Your task to perform on an android device: toggle pop-ups in chrome Image 0: 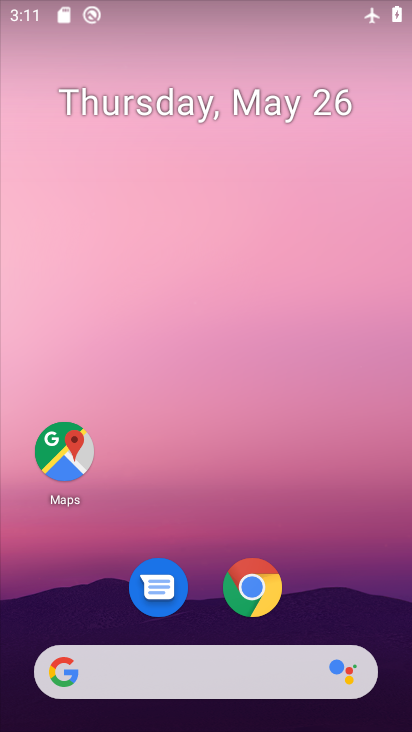
Step 0: drag from (331, 667) to (234, 229)
Your task to perform on an android device: toggle pop-ups in chrome Image 1: 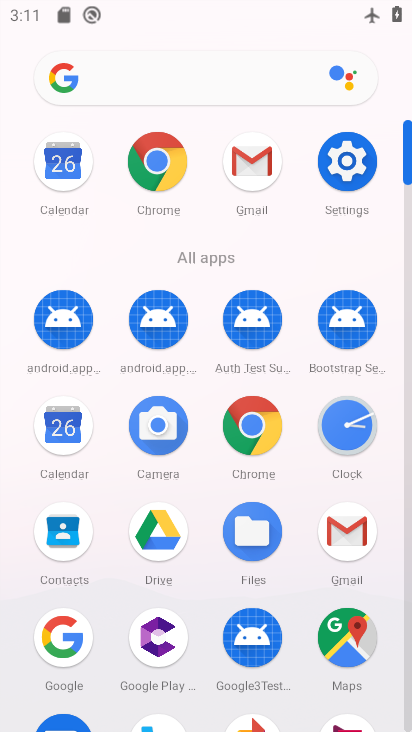
Step 1: click (157, 154)
Your task to perform on an android device: toggle pop-ups in chrome Image 2: 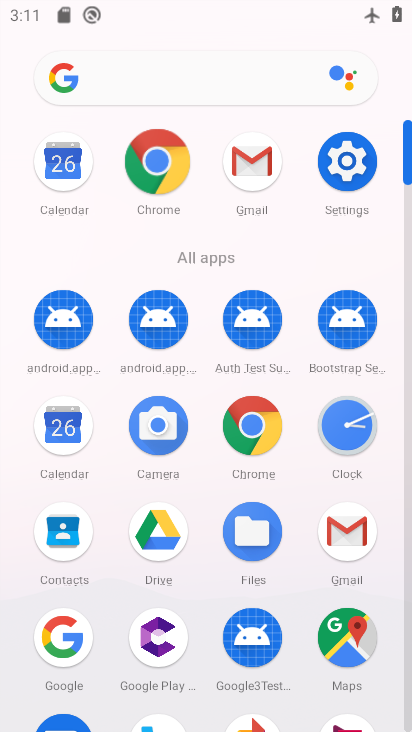
Step 2: click (146, 158)
Your task to perform on an android device: toggle pop-ups in chrome Image 3: 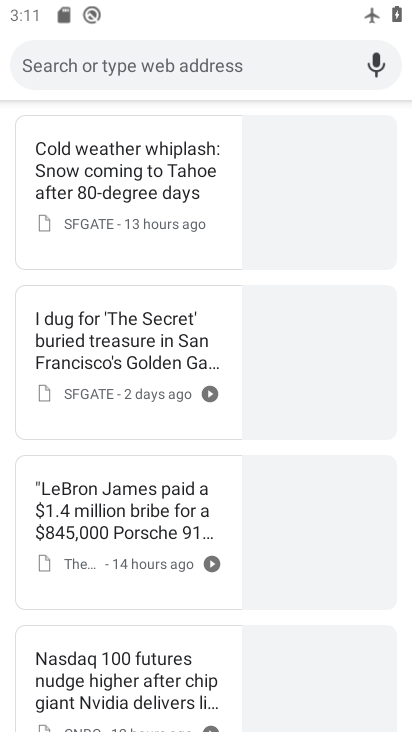
Step 3: press back button
Your task to perform on an android device: toggle pop-ups in chrome Image 4: 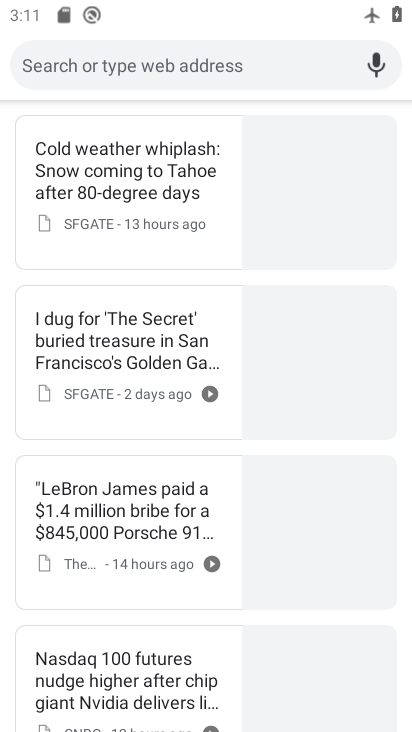
Step 4: press back button
Your task to perform on an android device: toggle pop-ups in chrome Image 5: 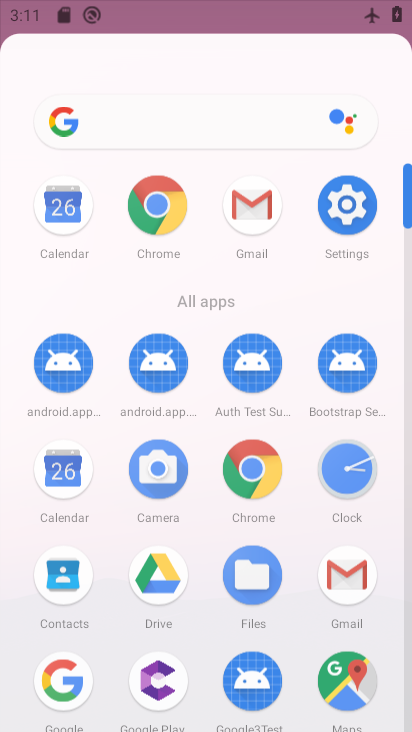
Step 5: press back button
Your task to perform on an android device: toggle pop-ups in chrome Image 6: 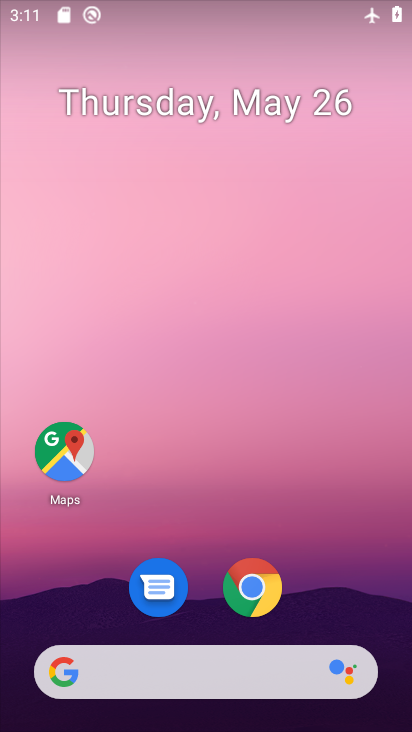
Step 6: drag from (199, 568) to (199, 207)
Your task to perform on an android device: toggle pop-ups in chrome Image 7: 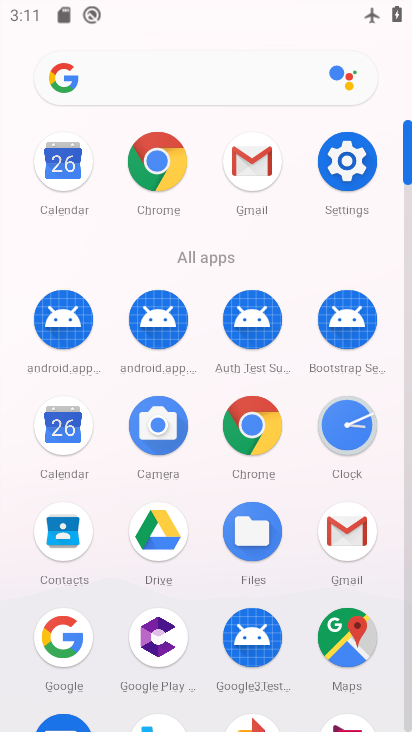
Step 7: click (159, 168)
Your task to perform on an android device: toggle pop-ups in chrome Image 8: 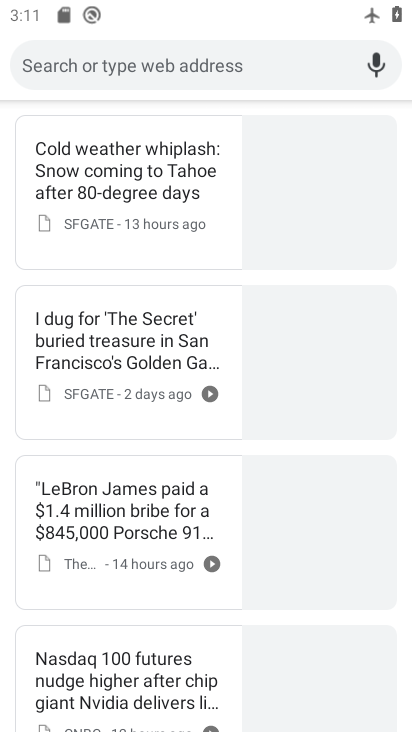
Step 8: press back button
Your task to perform on an android device: toggle pop-ups in chrome Image 9: 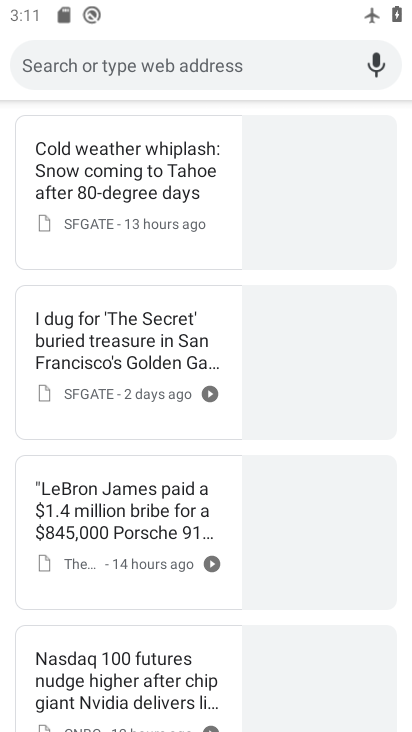
Step 9: press back button
Your task to perform on an android device: toggle pop-ups in chrome Image 10: 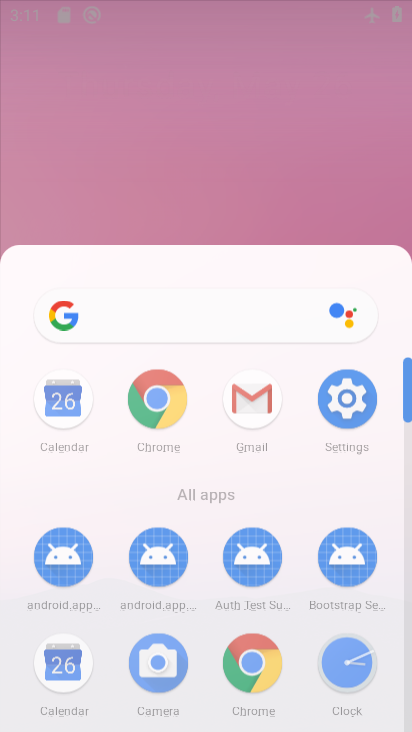
Step 10: press back button
Your task to perform on an android device: toggle pop-ups in chrome Image 11: 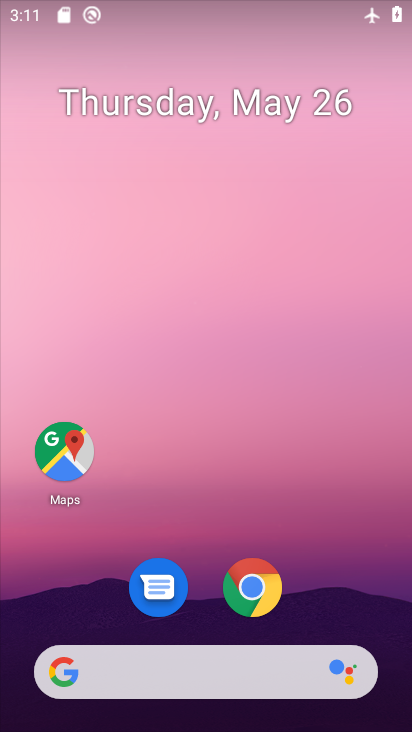
Step 11: drag from (271, 694) to (271, 135)
Your task to perform on an android device: toggle pop-ups in chrome Image 12: 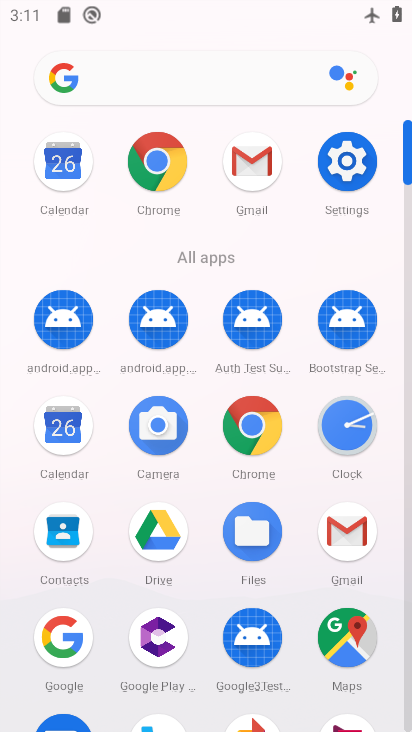
Step 12: click (254, 416)
Your task to perform on an android device: toggle pop-ups in chrome Image 13: 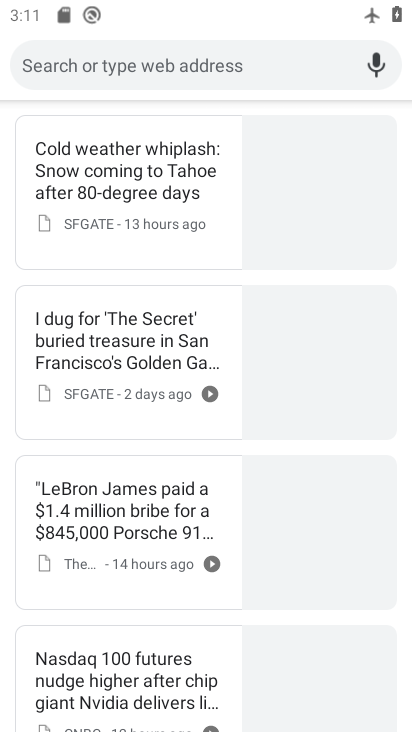
Step 13: press home button
Your task to perform on an android device: toggle pop-ups in chrome Image 14: 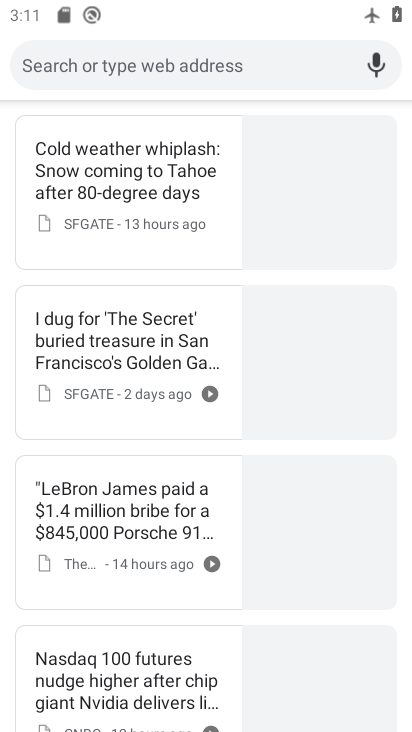
Step 14: press home button
Your task to perform on an android device: toggle pop-ups in chrome Image 15: 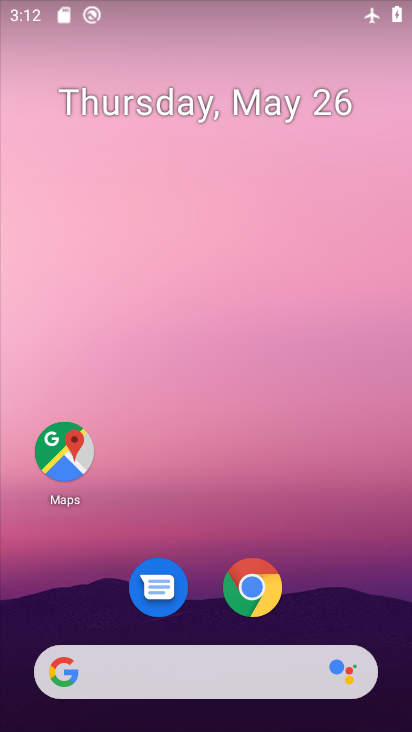
Step 15: drag from (281, 643) to (225, 198)
Your task to perform on an android device: toggle pop-ups in chrome Image 16: 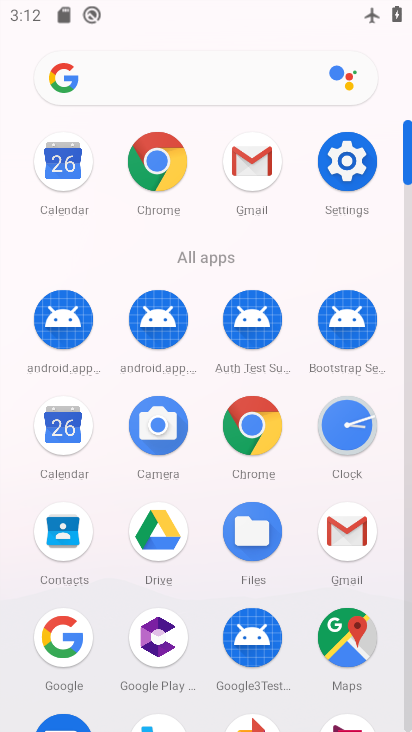
Step 16: click (150, 164)
Your task to perform on an android device: toggle pop-ups in chrome Image 17: 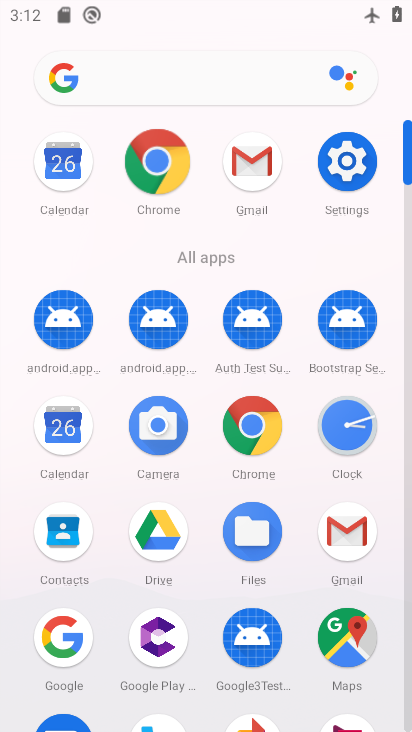
Step 17: click (150, 164)
Your task to perform on an android device: toggle pop-ups in chrome Image 18: 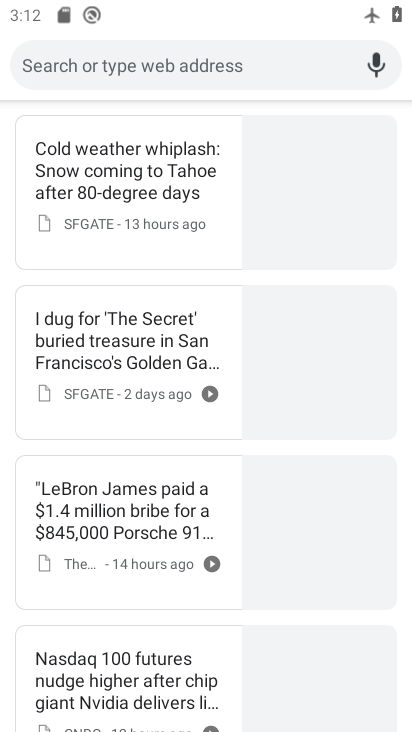
Step 18: press home button
Your task to perform on an android device: toggle pop-ups in chrome Image 19: 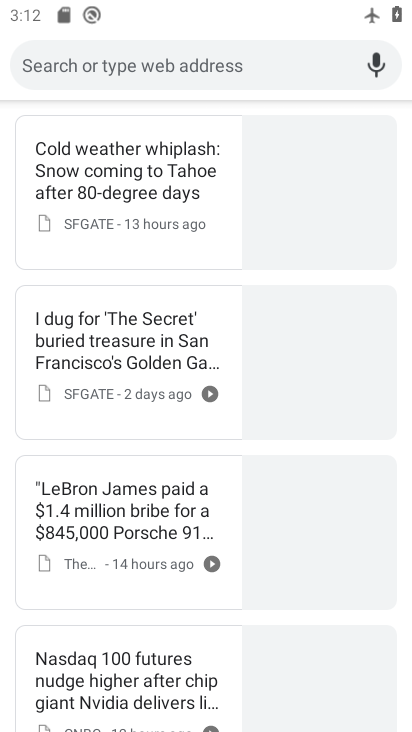
Step 19: press home button
Your task to perform on an android device: toggle pop-ups in chrome Image 20: 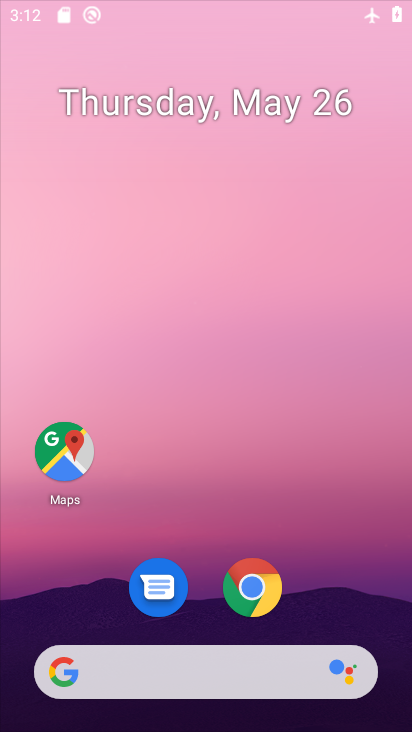
Step 20: press home button
Your task to perform on an android device: toggle pop-ups in chrome Image 21: 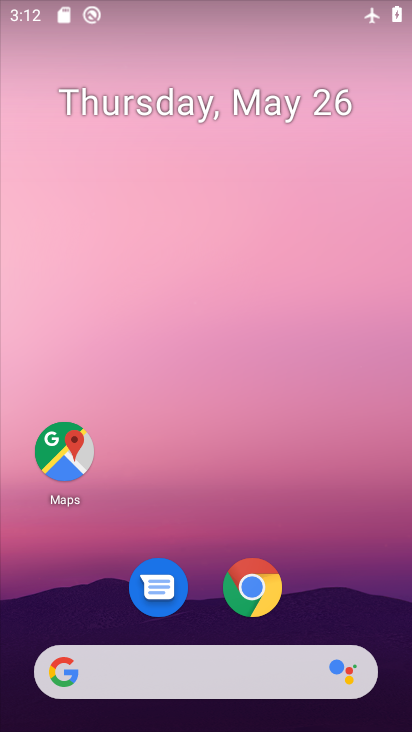
Step 21: drag from (217, 630) to (177, 95)
Your task to perform on an android device: toggle pop-ups in chrome Image 22: 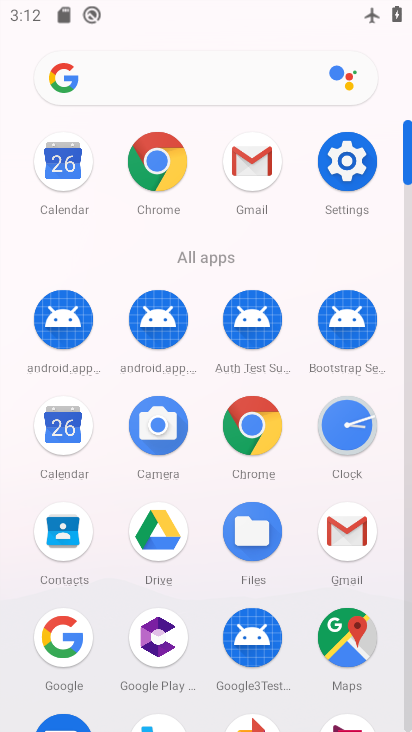
Step 22: click (161, 161)
Your task to perform on an android device: toggle pop-ups in chrome Image 23: 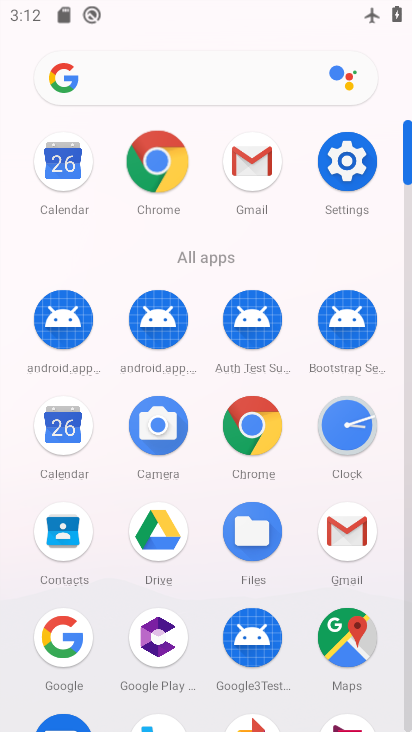
Step 23: click (161, 161)
Your task to perform on an android device: toggle pop-ups in chrome Image 24: 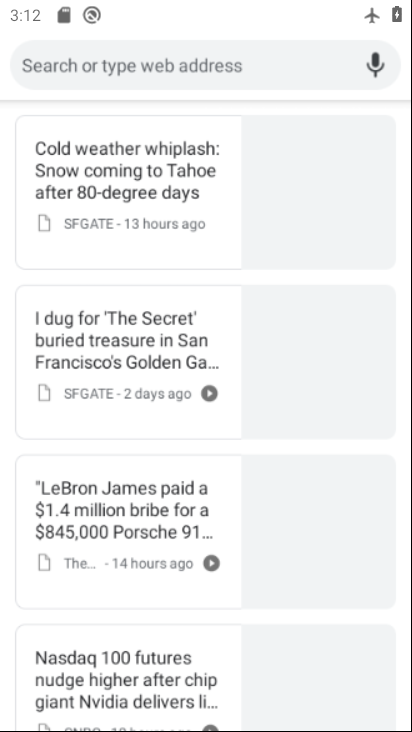
Step 24: click (163, 160)
Your task to perform on an android device: toggle pop-ups in chrome Image 25: 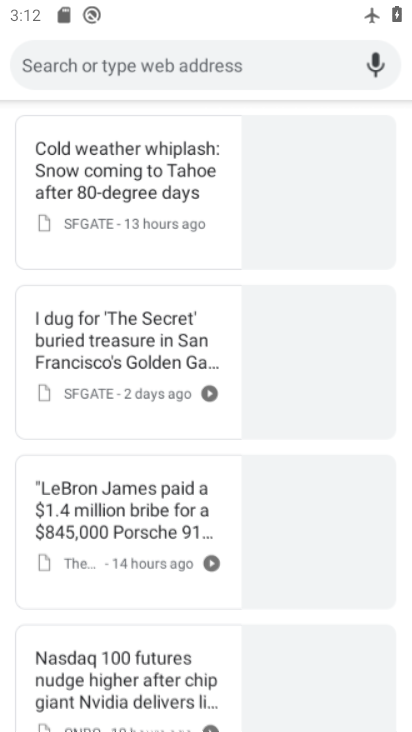
Step 25: click (164, 161)
Your task to perform on an android device: toggle pop-ups in chrome Image 26: 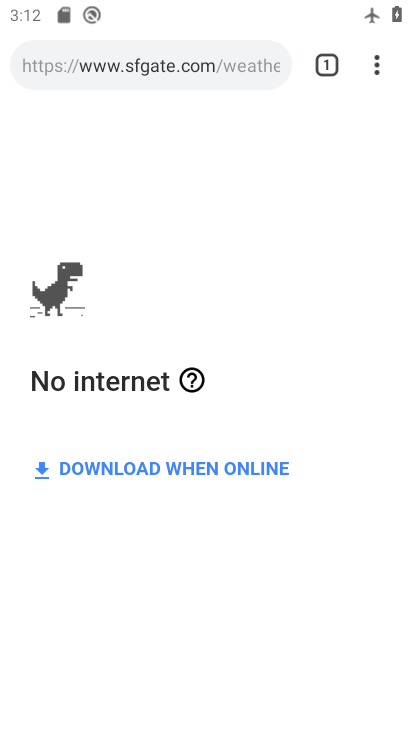
Step 26: press back button
Your task to perform on an android device: toggle pop-ups in chrome Image 27: 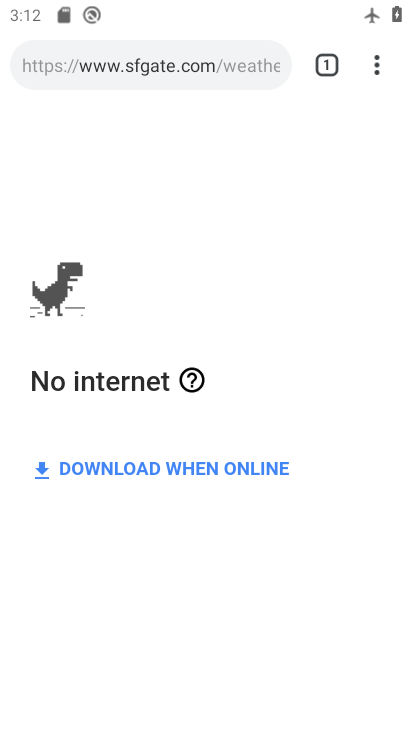
Step 27: press back button
Your task to perform on an android device: toggle pop-ups in chrome Image 28: 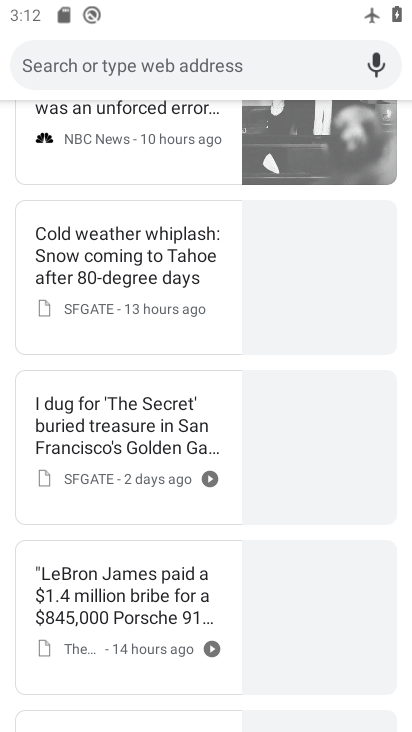
Step 28: press back button
Your task to perform on an android device: toggle pop-ups in chrome Image 29: 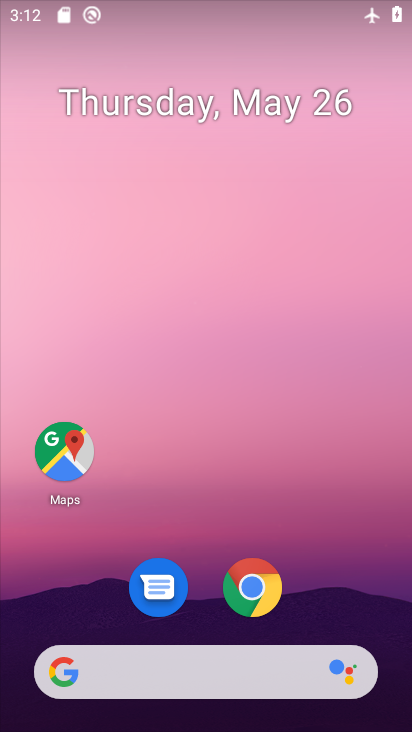
Step 29: drag from (215, 645) to (90, 87)
Your task to perform on an android device: toggle pop-ups in chrome Image 30: 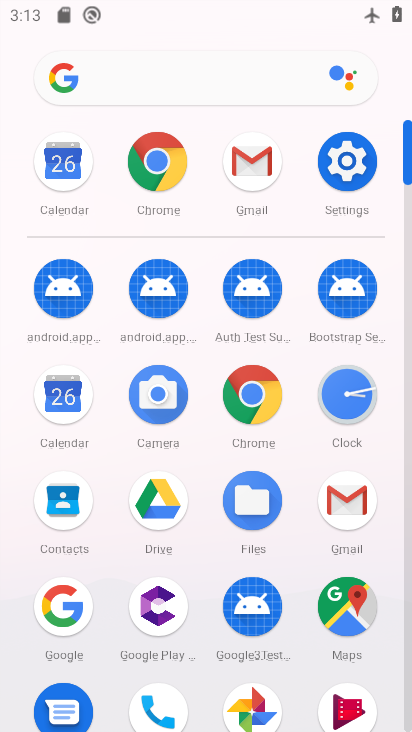
Step 30: drag from (216, 636) to (239, 683)
Your task to perform on an android device: toggle pop-ups in chrome Image 31: 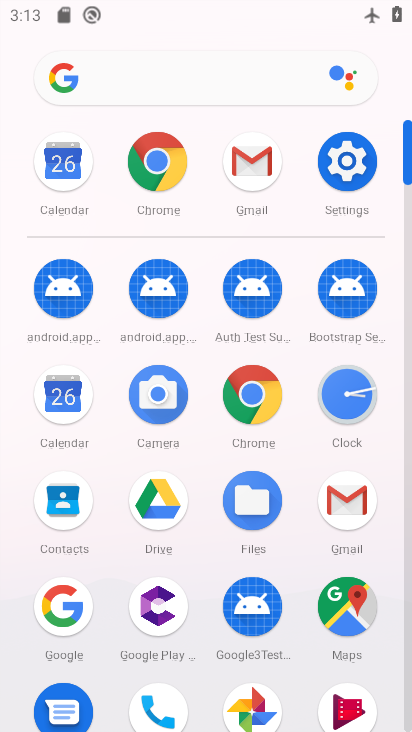
Step 31: click (163, 160)
Your task to perform on an android device: toggle pop-ups in chrome Image 32: 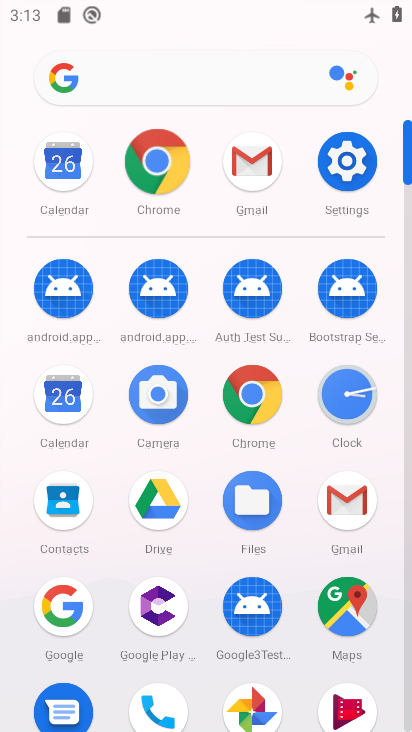
Step 32: click (164, 158)
Your task to perform on an android device: toggle pop-ups in chrome Image 33: 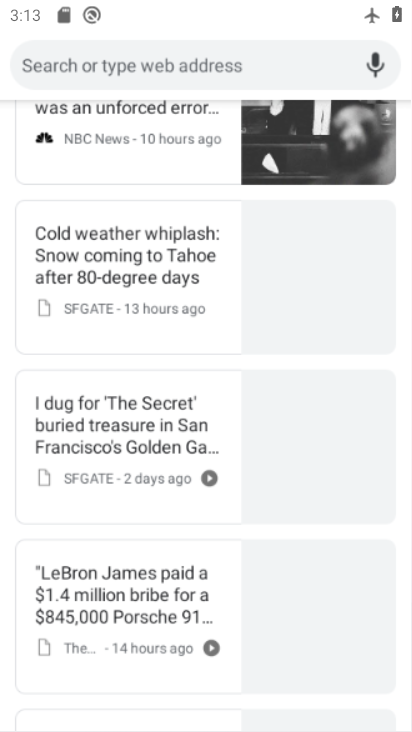
Step 33: click (166, 158)
Your task to perform on an android device: toggle pop-ups in chrome Image 34: 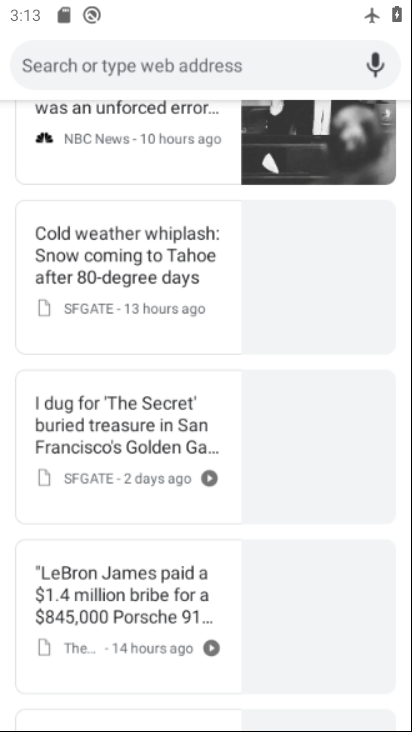
Step 34: click (166, 158)
Your task to perform on an android device: toggle pop-ups in chrome Image 35: 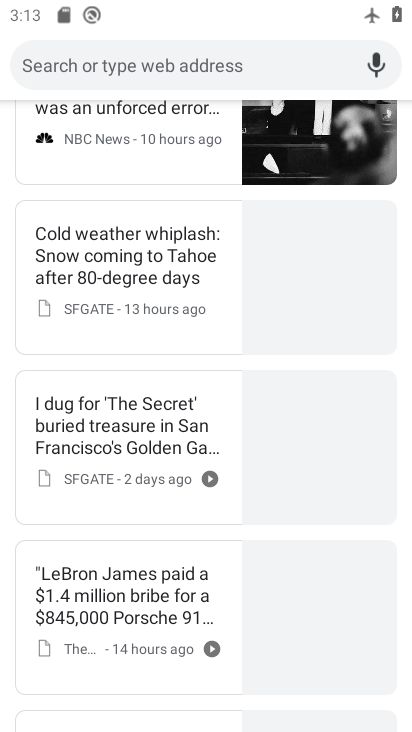
Step 35: drag from (267, 186) to (298, 484)
Your task to perform on an android device: toggle pop-ups in chrome Image 36: 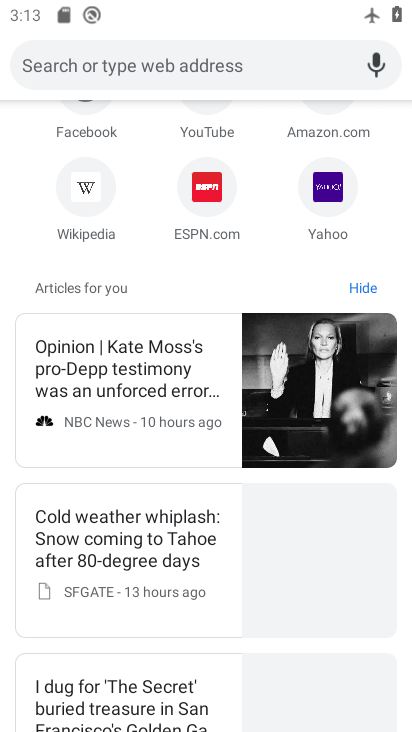
Step 36: drag from (257, 158) to (330, 552)
Your task to perform on an android device: toggle pop-ups in chrome Image 37: 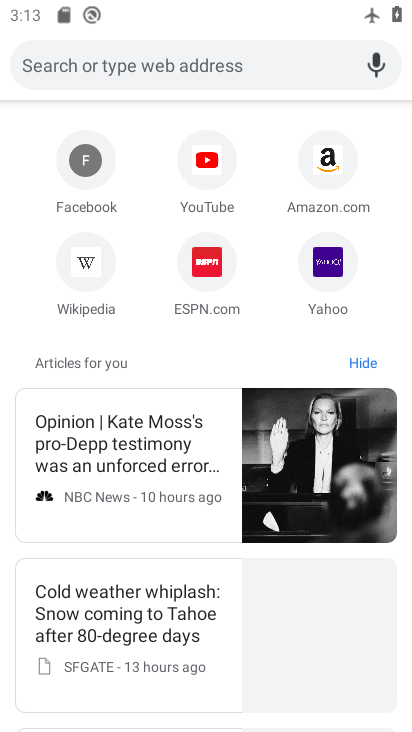
Step 37: drag from (256, 259) to (291, 558)
Your task to perform on an android device: toggle pop-ups in chrome Image 38: 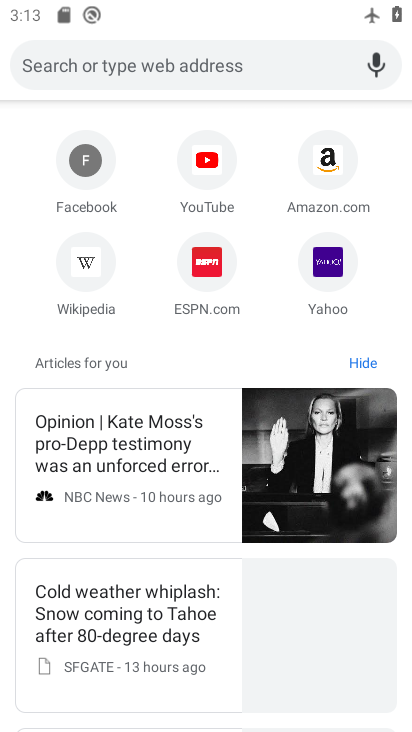
Step 38: drag from (289, 141) to (317, 563)
Your task to perform on an android device: toggle pop-ups in chrome Image 39: 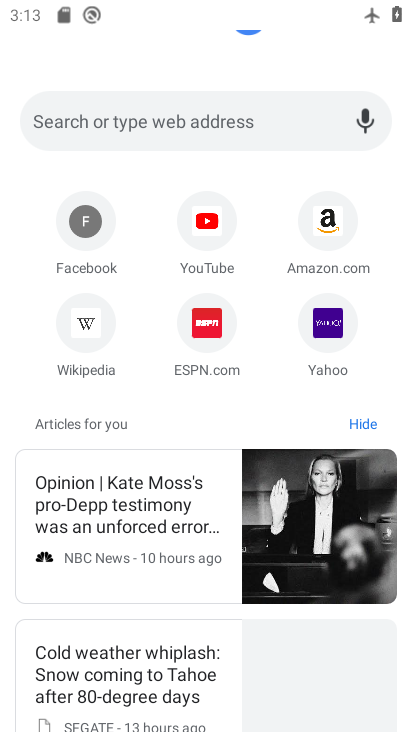
Step 39: drag from (305, 150) to (329, 652)
Your task to perform on an android device: toggle pop-ups in chrome Image 40: 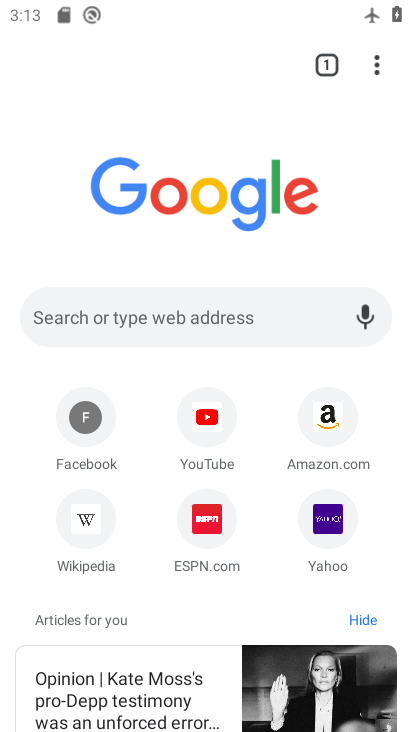
Step 40: drag from (369, 62) to (127, 546)
Your task to perform on an android device: toggle pop-ups in chrome Image 41: 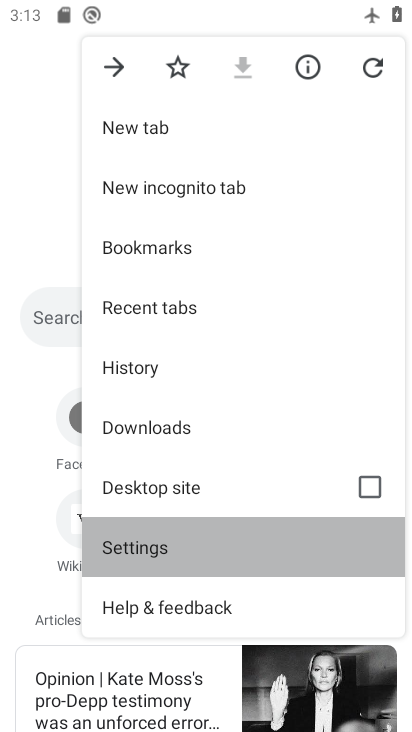
Step 41: click (129, 547)
Your task to perform on an android device: toggle pop-ups in chrome Image 42: 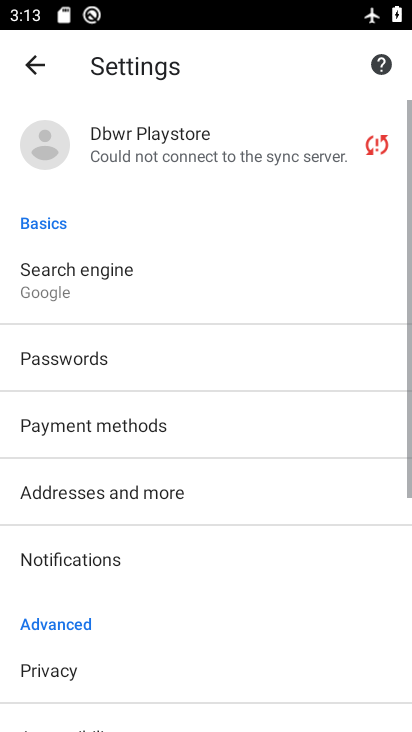
Step 42: drag from (146, 417) to (91, 68)
Your task to perform on an android device: toggle pop-ups in chrome Image 43: 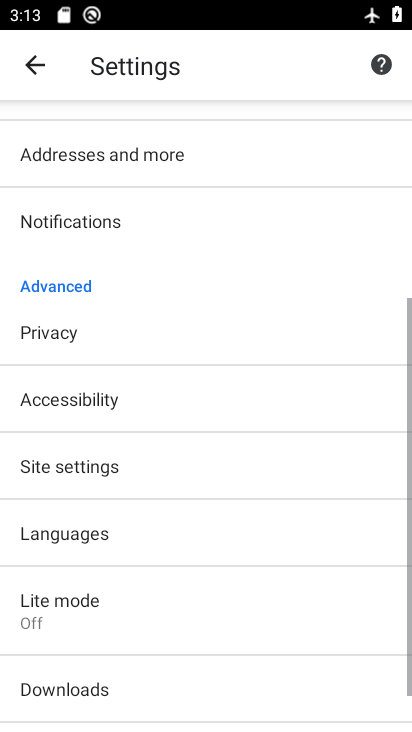
Step 43: drag from (210, 485) to (166, 87)
Your task to perform on an android device: toggle pop-ups in chrome Image 44: 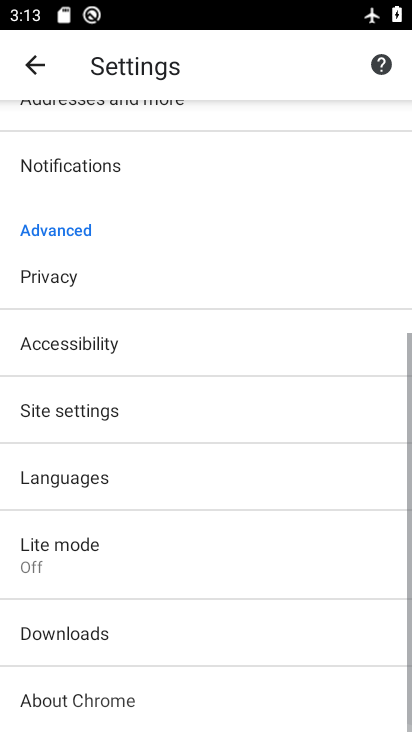
Step 44: drag from (204, 481) to (161, 27)
Your task to perform on an android device: toggle pop-ups in chrome Image 45: 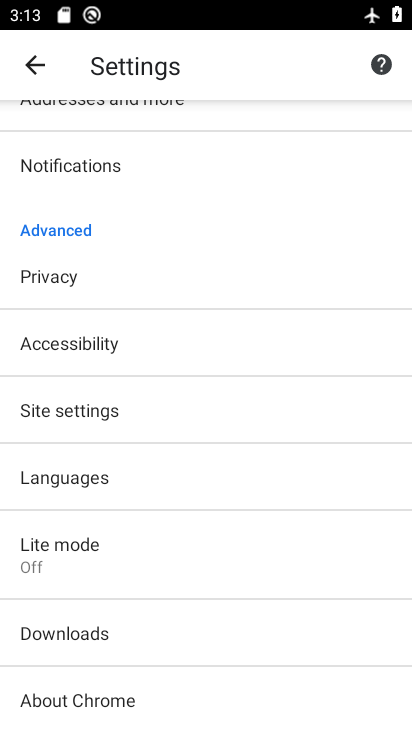
Step 45: click (60, 405)
Your task to perform on an android device: toggle pop-ups in chrome Image 46: 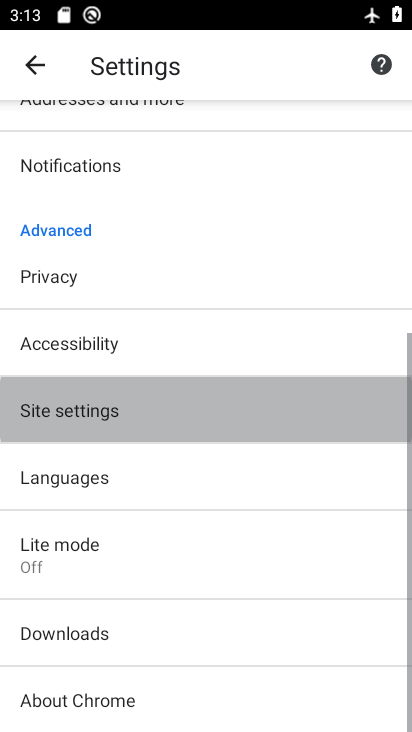
Step 46: click (59, 406)
Your task to perform on an android device: toggle pop-ups in chrome Image 47: 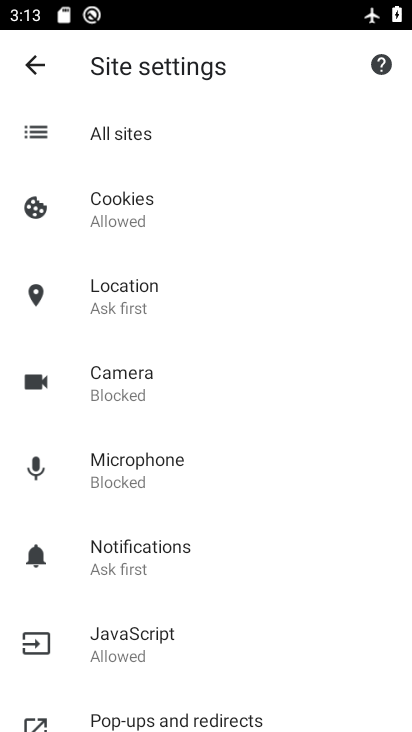
Step 47: drag from (107, 552) to (107, 318)
Your task to perform on an android device: toggle pop-ups in chrome Image 48: 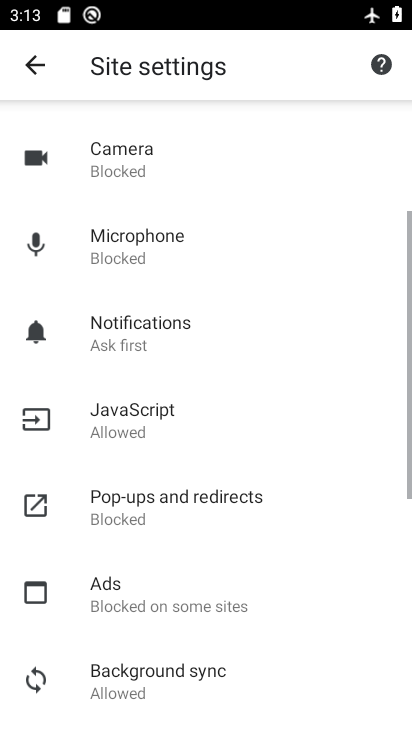
Step 48: drag from (150, 408) to (90, 124)
Your task to perform on an android device: toggle pop-ups in chrome Image 49: 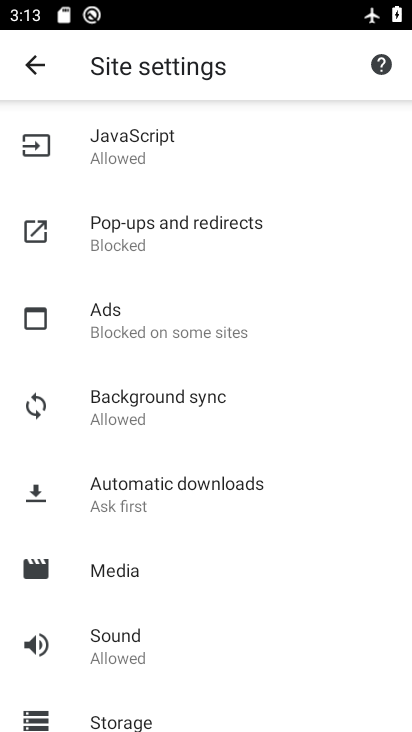
Step 49: click (120, 200)
Your task to perform on an android device: toggle pop-ups in chrome Image 50: 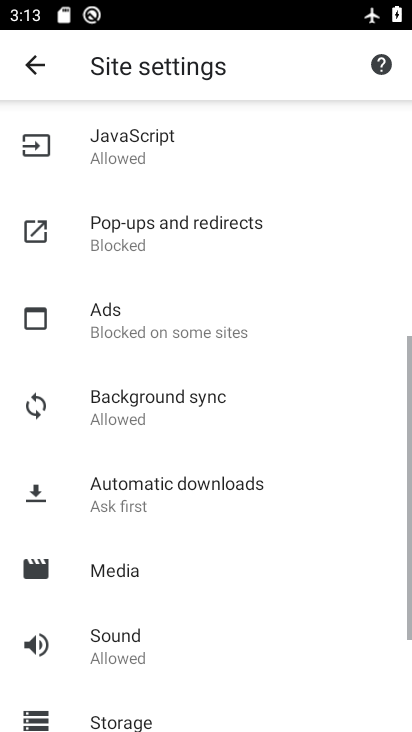
Step 50: click (126, 221)
Your task to perform on an android device: toggle pop-ups in chrome Image 51: 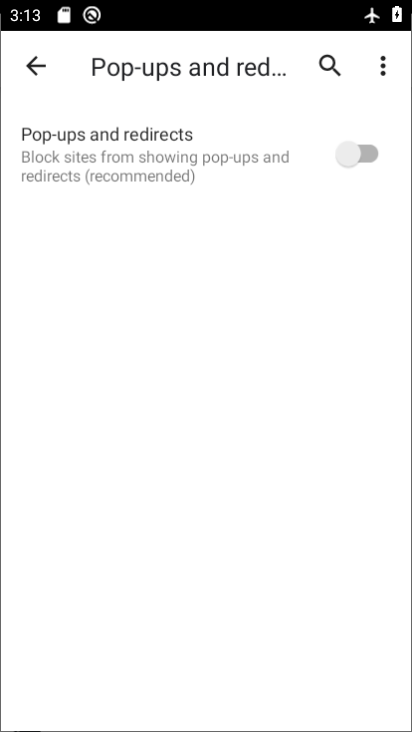
Step 51: click (128, 228)
Your task to perform on an android device: toggle pop-ups in chrome Image 52: 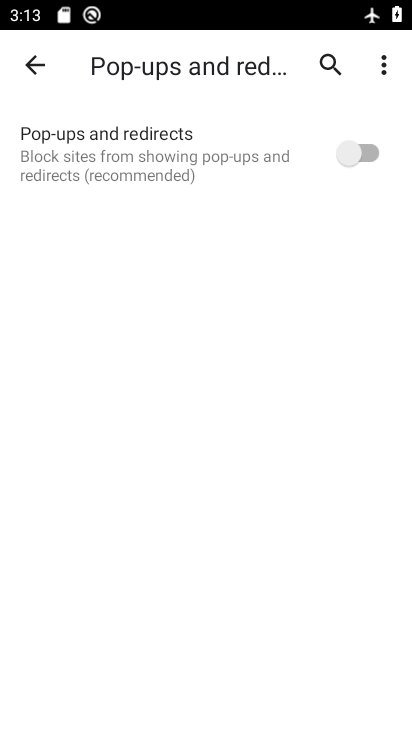
Step 52: click (128, 228)
Your task to perform on an android device: toggle pop-ups in chrome Image 53: 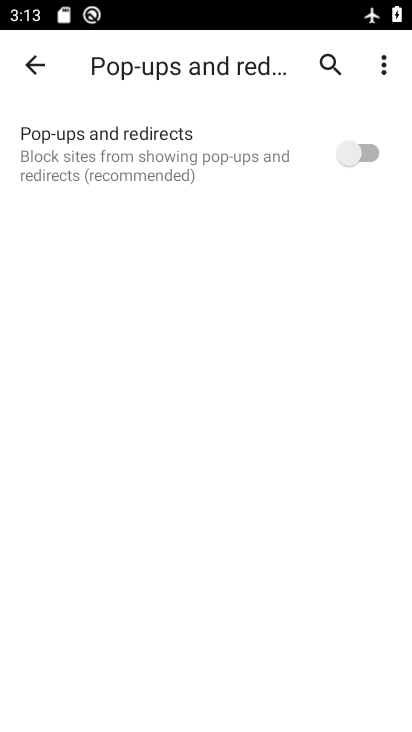
Step 53: click (343, 160)
Your task to perform on an android device: toggle pop-ups in chrome Image 54: 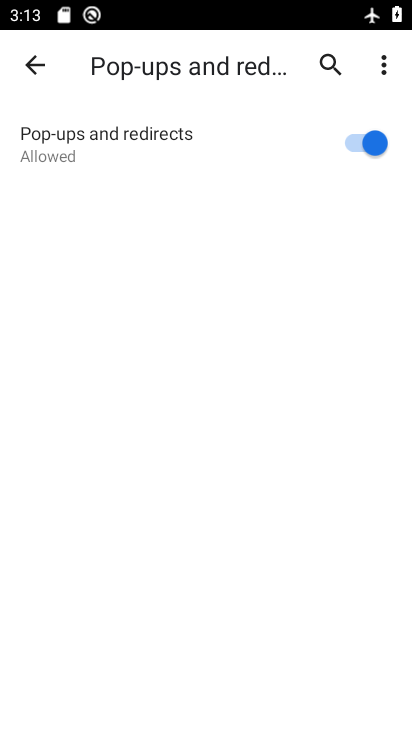
Step 54: task complete